Your task to perform on an android device: turn off javascript in the chrome app Image 0: 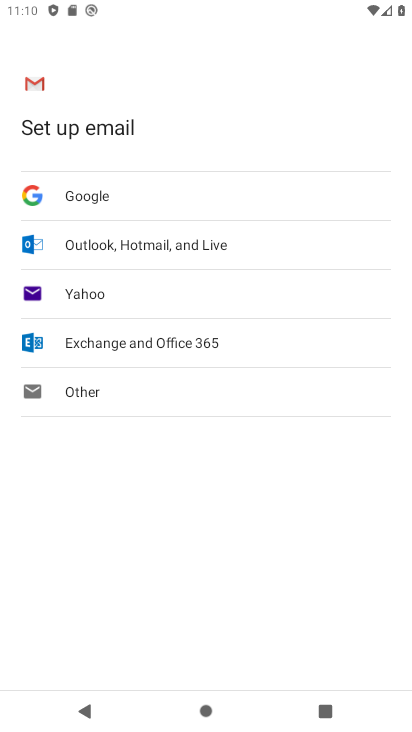
Step 0: press home button
Your task to perform on an android device: turn off javascript in the chrome app Image 1: 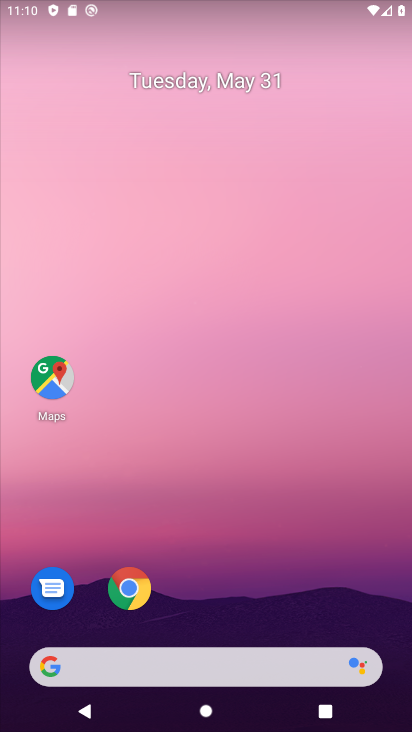
Step 1: click (131, 584)
Your task to perform on an android device: turn off javascript in the chrome app Image 2: 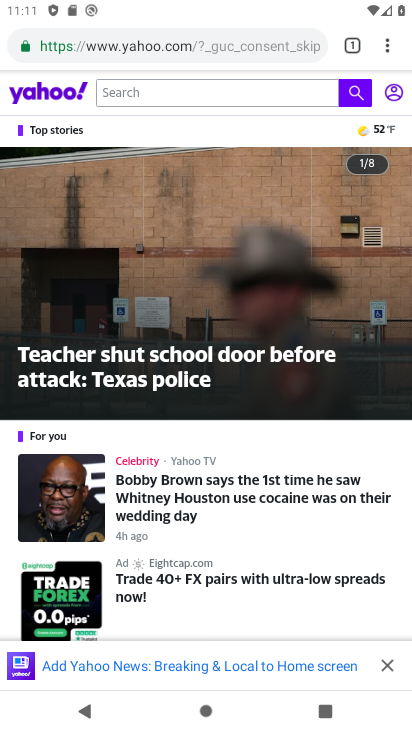
Step 2: click (384, 47)
Your task to perform on an android device: turn off javascript in the chrome app Image 3: 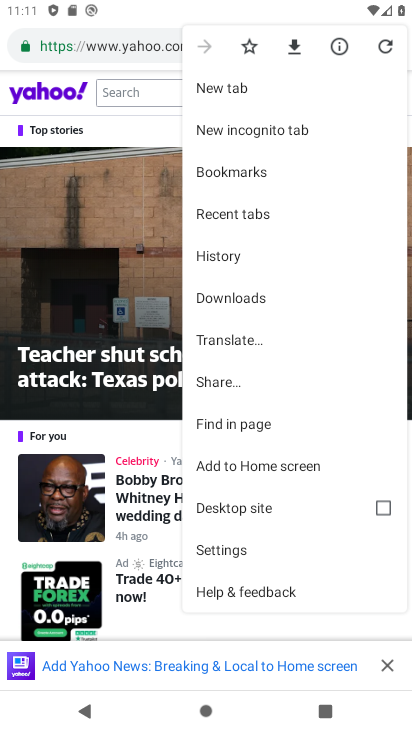
Step 3: click (223, 547)
Your task to perform on an android device: turn off javascript in the chrome app Image 4: 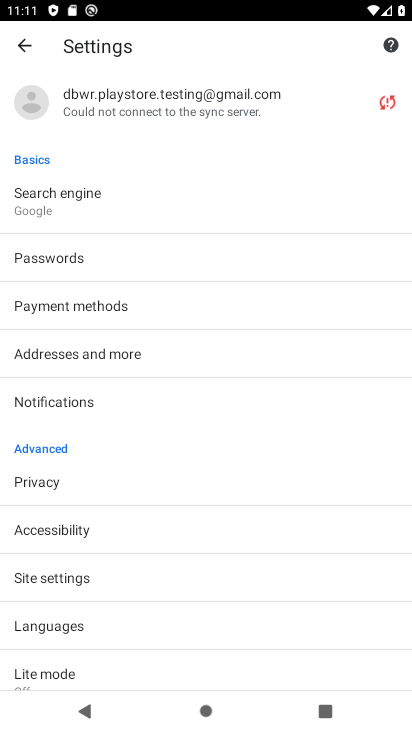
Step 4: click (90, 580)
Your task to perform on an android device: turn off javascript in the chrome app Image 5: 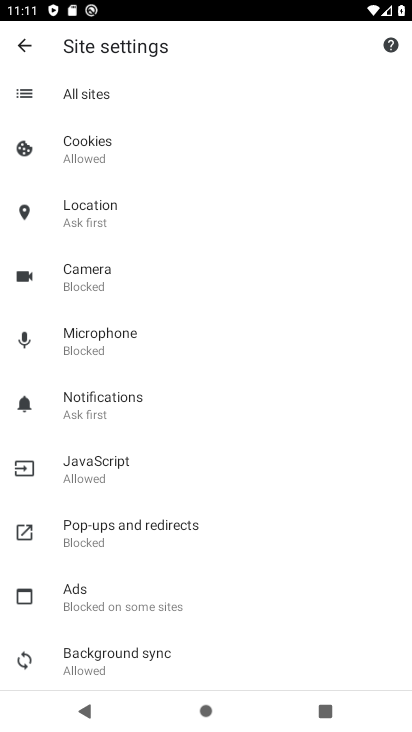
Step 5: click (86, 459)
Your task to perform on an android device: turn off javascript in the chrome app Image 6: 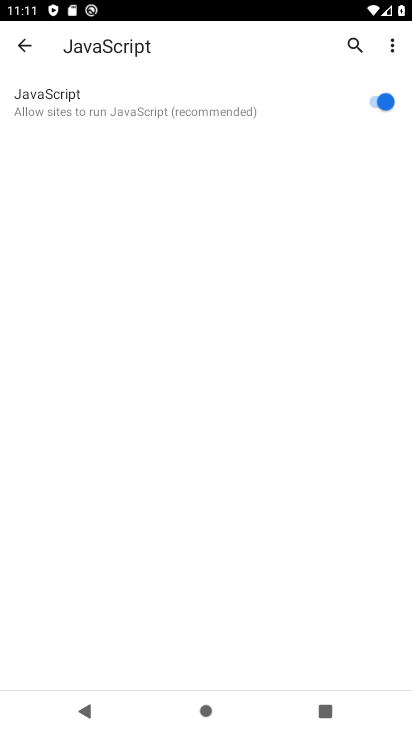
Step 6: click (372, 100)
Your task to perform on an android device: turn off javascript in the chrome app Image 7: 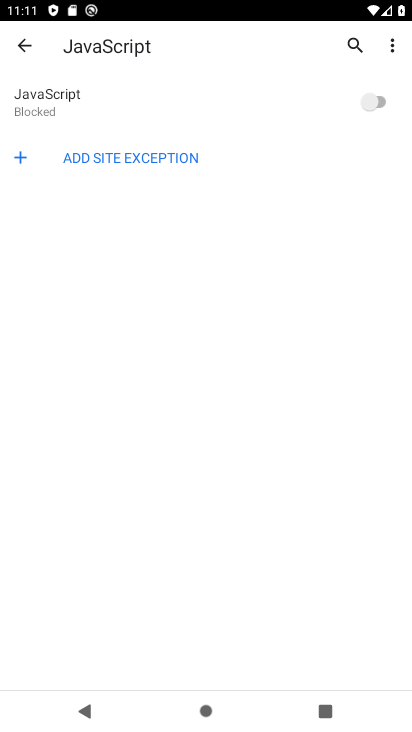
Step 7: task complete